Your task to perform on an android device: toggle data saver in the chrome app Image 0: 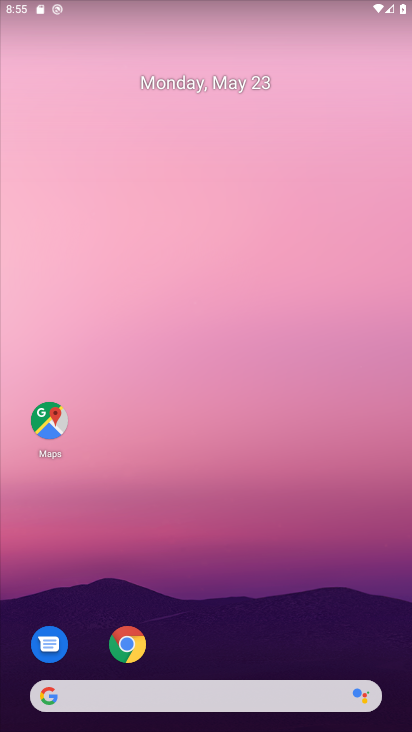
Step 0: drag from (330, 592) to (360, 74)
Your task to perform on an android device: toggle data saver in the chrome app Image 1: 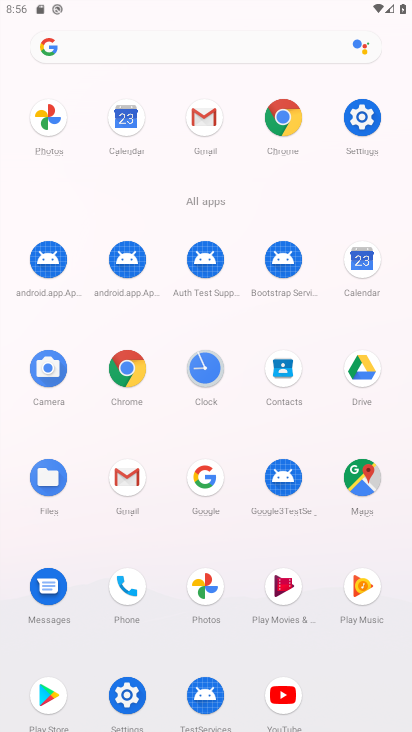
Step 1: click (125, 362)
Your task to perform on an android device: toggle data saver in the chrome app Image 2: 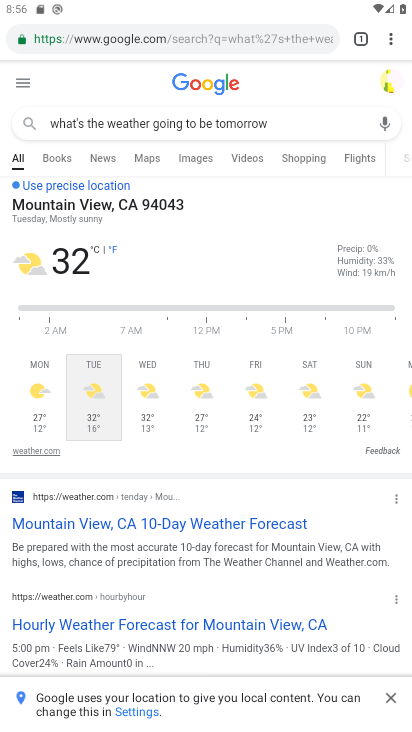
Step 2: drag from (390, 49) to (256, 438)
Your task to perform on an android device: toggle data saver in the chrome app Image 3: 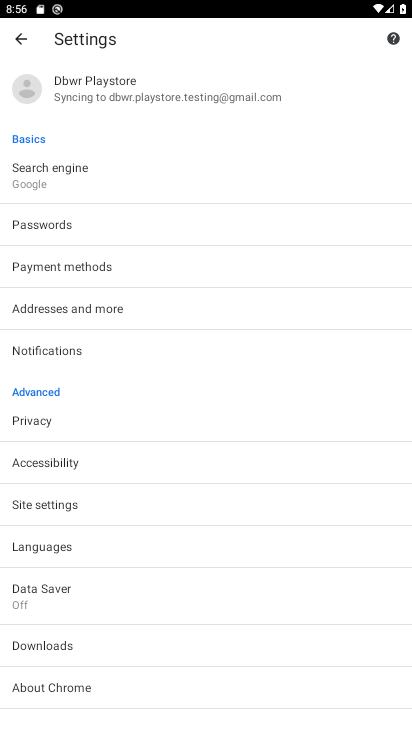
Step 3: click (88, 600)
Your task to perform on an android device: toggle data saver in the chrome app Image 4: 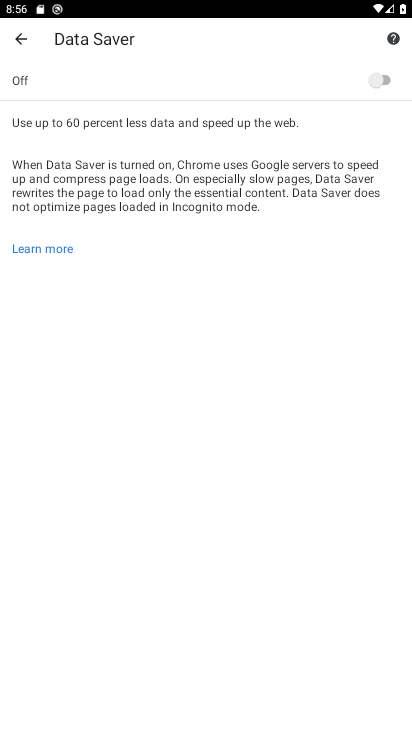
Step 4: click (384, 85)
Your task to perform on an android device: toggle data saver in the chrome app Image 5: 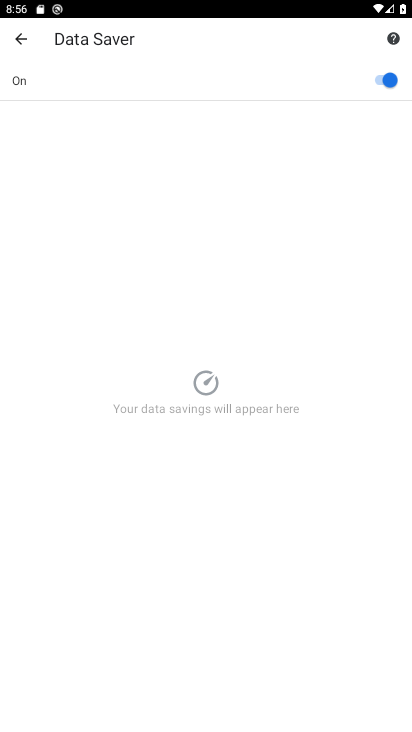
Step 5: task complete